Your task to perform on an android device: toggle notifications settings in the gmail app Image 0: 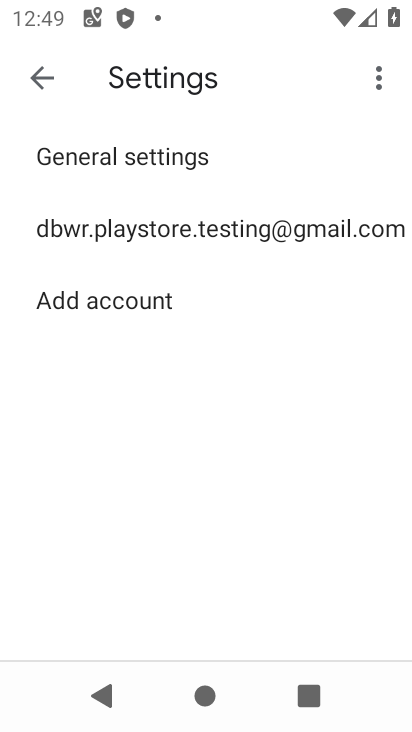
Step 0: press back button
Your task to perform on an android device: toggle notifications settings in the gmail app Image 1: 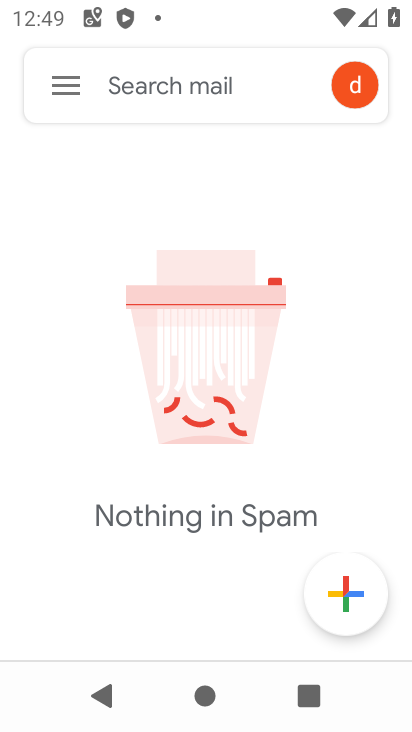
Step 1: press back button
Your task to perform on an android device: toggle notifications settings in the gmail app Image 2: 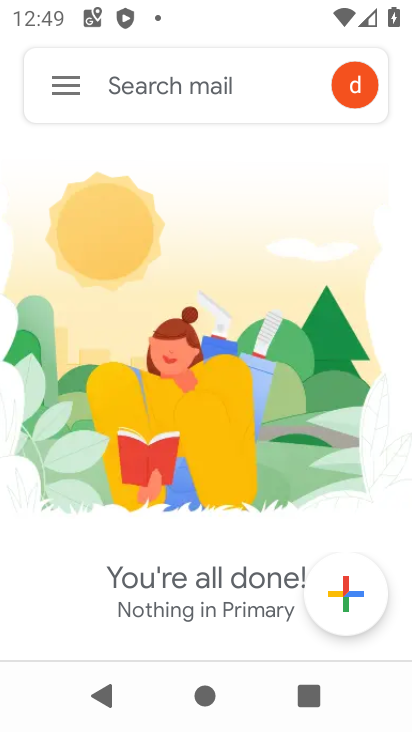
Step 2: press back button
Your task to perform on an android device: toggle notifications settings in the gmail app Image 3: 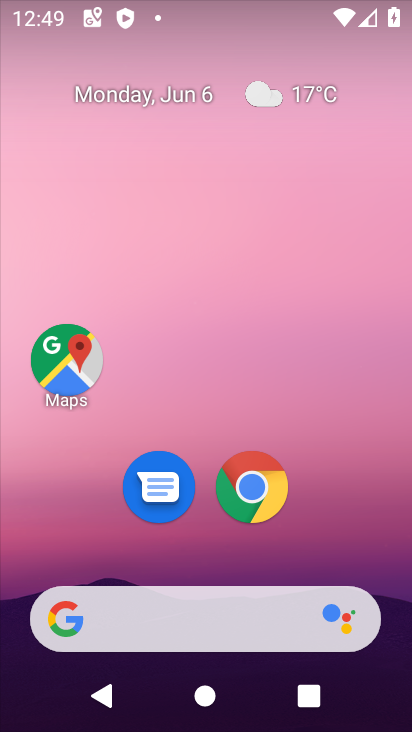
Step 3: drag from (181, 559) to (224, 38)
Your task to perform on an android device: toggle notifications settings in the gmail app Image 4: 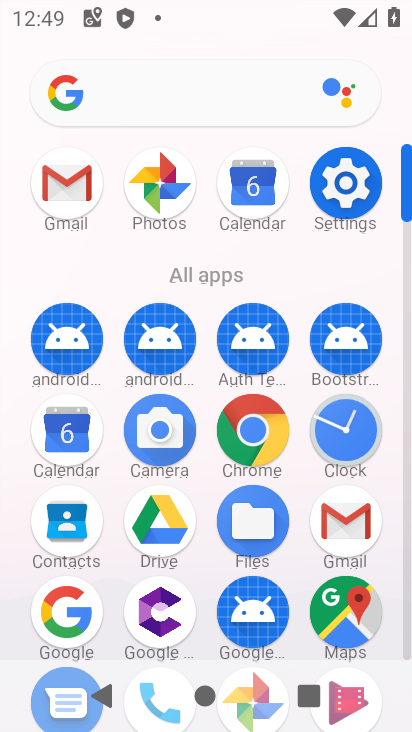
Step 4: click (64, 179)
Your task to perform on an android device: toggle notifications settings in the gmail app Image 5: 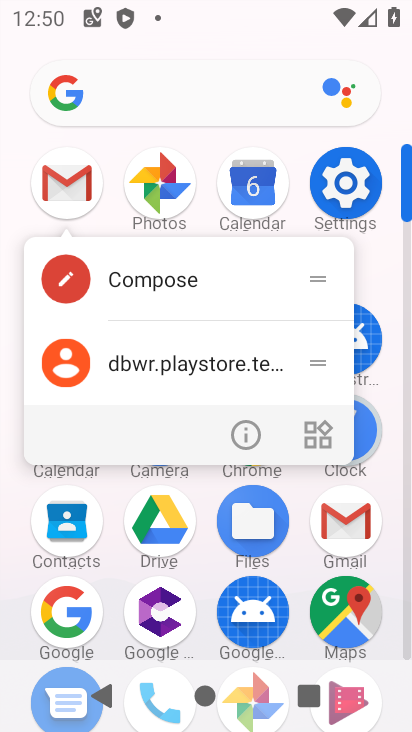
Step 5: click (255, 436)
Your task to perform on an android device: toggle notifications settings in the gmail app Image 6: 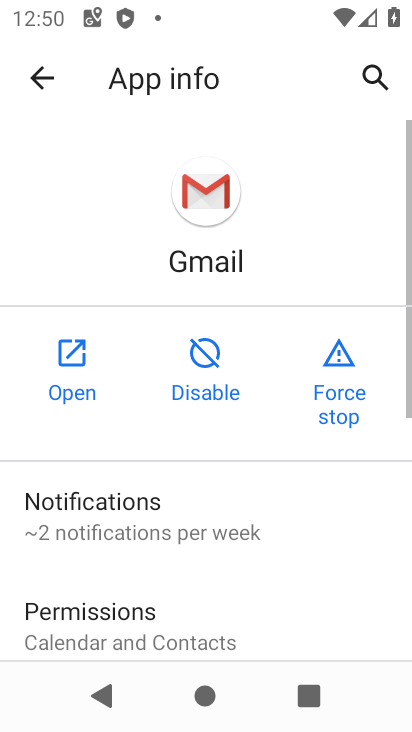
Step 6: click (161, 495)
Your task to perform on an android device: toggle notifications settings in the gmail app Image 7: 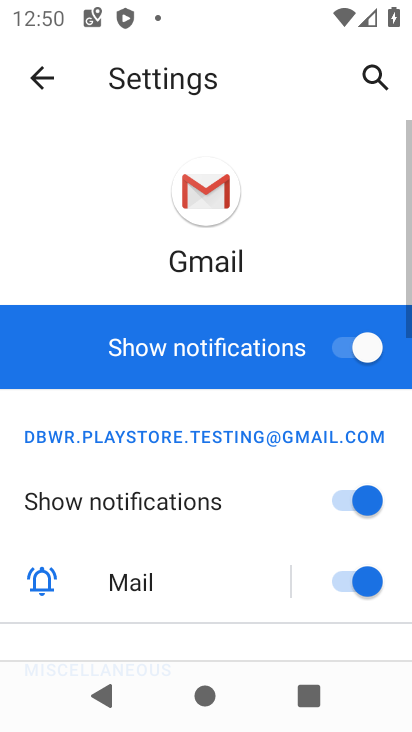
Step 7: click (345, 349)
Your task to perform on an android device: toggle notifications settings in the gmail app Image 8: 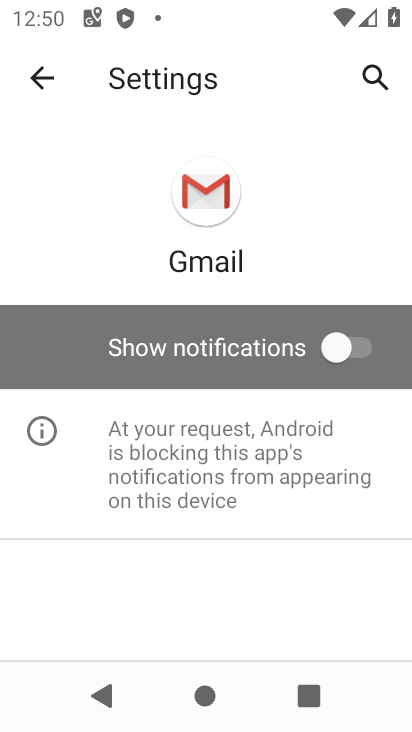
Step 8: task complete